Your task to perform on an android device: Go to display settings Image 0: 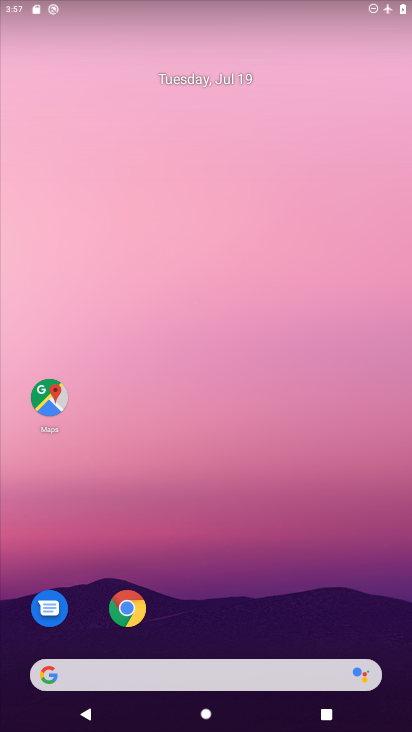
Step 0: drag from (355, 611) to (302, 56)
Your task to perform on an android device: Go to display settings Image 1: 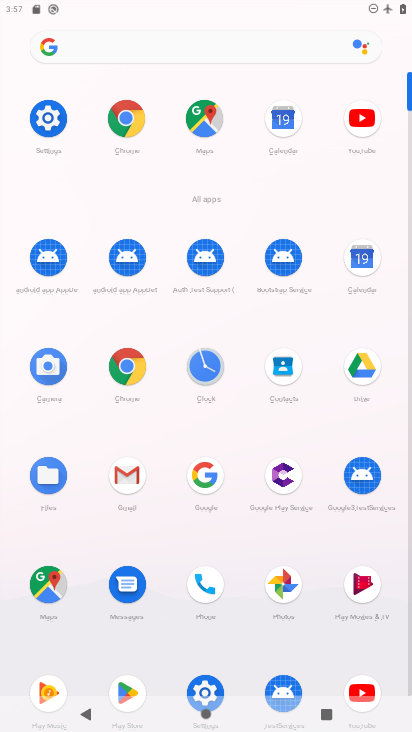
Step 1: click (51, 111)
Your task to perform on an android device: Go to display settings Image 2: 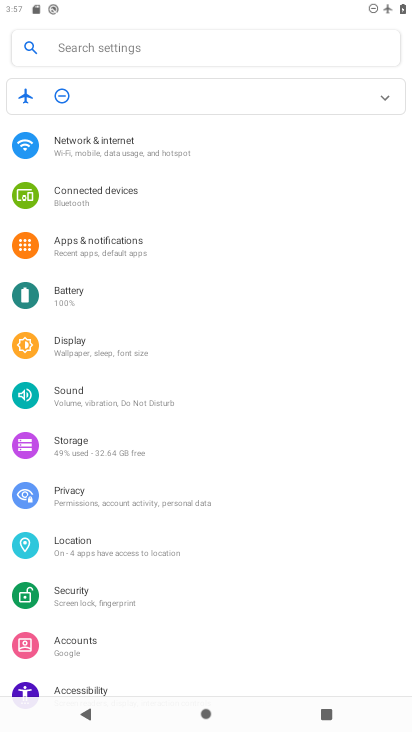
Step 2: click (73, 349)
Your task to perform on an android device: Go to display settings Image 3: 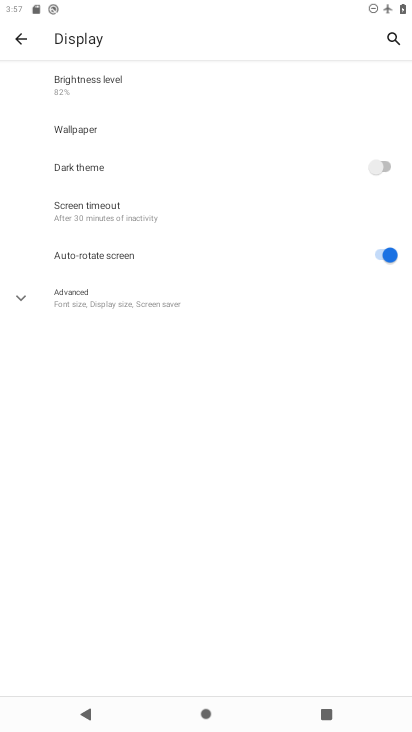
Step 3: task complete